Your task to perform on an android device: Open Maps and search for coffee Image 0: 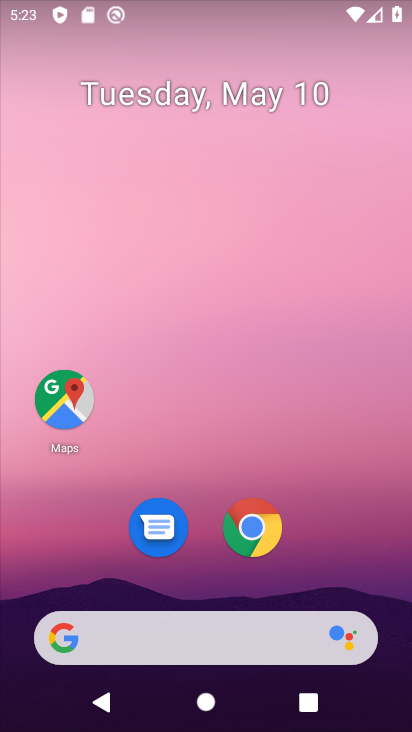
Step 0: click (78, 401)
Your task to perform on an android device: Open Maps and search for coffee Image 1: 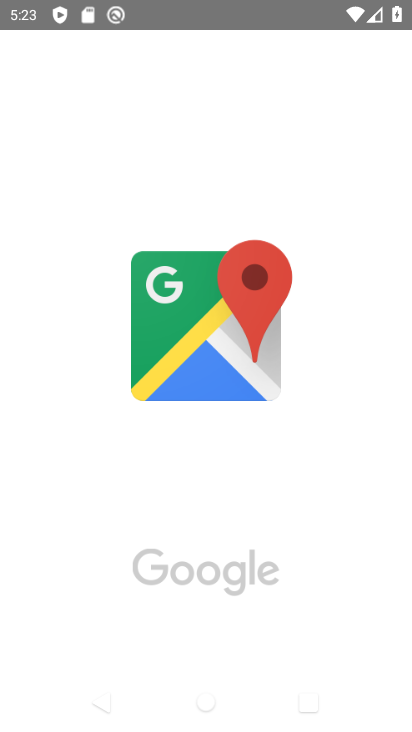
Step 1: click (78, 401)
Your task to perform on an android device: Open Maps and search for coffee Image 2: 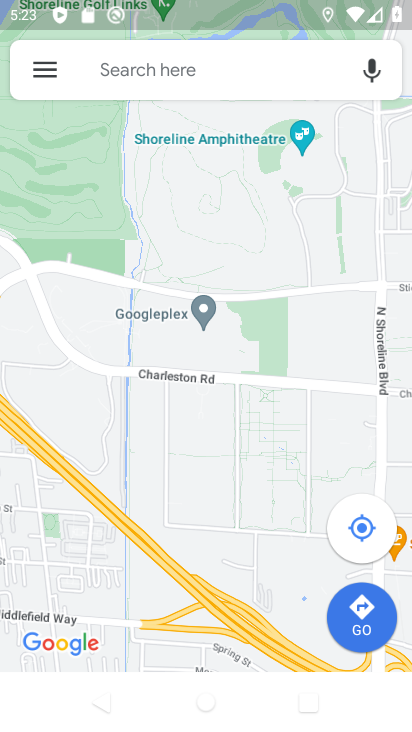
Step 2: click (146, 60)
Your task to perform on an android device: Open Maps and search for coffee Image 3: 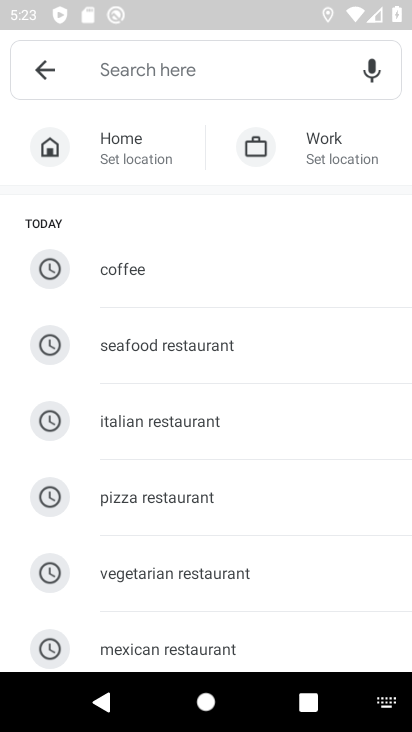
Step 3: click (167, 269)
Your task to perform on an android device: Open Maps and search for coffee Image 4: 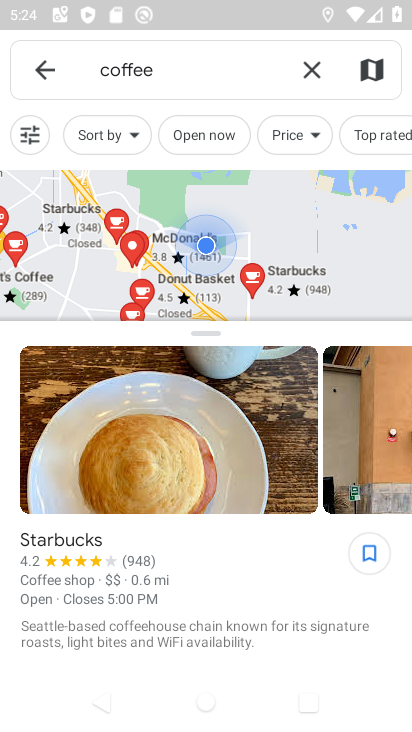
Step 4: task complete